Your task to perform on an android device: turn off priority inbox in the gmail app Image 0: 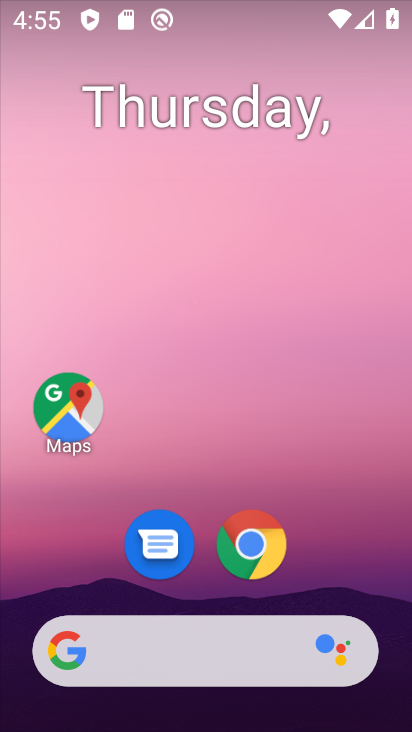
Step 0: drag from (347, 561) to (380, 115)
Your task to perform on an android device: turn off priority inbox in the gmail app Image 1: 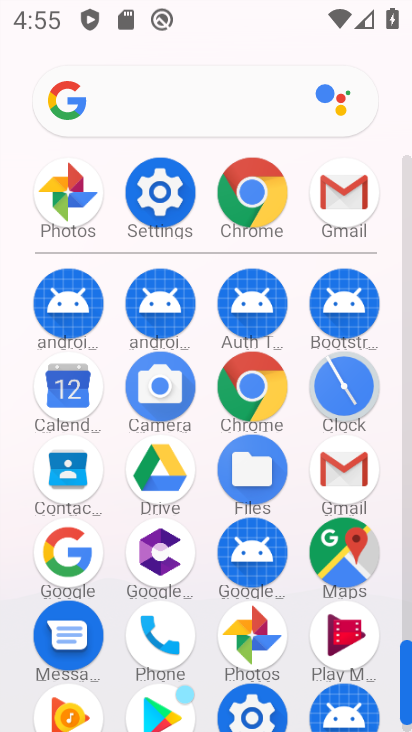
Step 1: click (352, 214)
Your task to perform on an android device: turn off priority inbox in the gmail app Image 2: 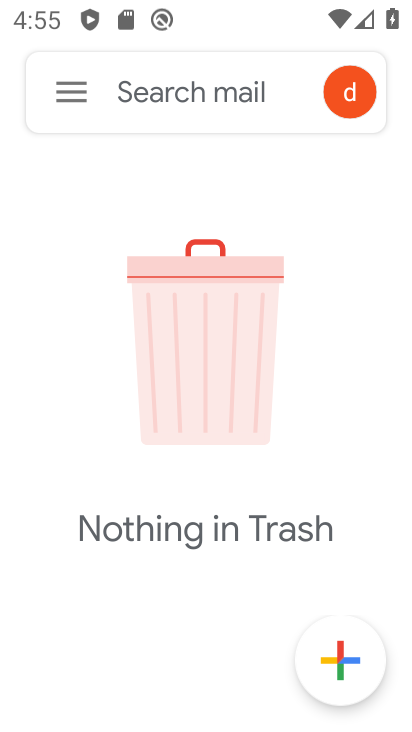
Step 2: click (66, 90)
Your task to perform on an android device: turn off priority inbox in the gmail app Image 3: 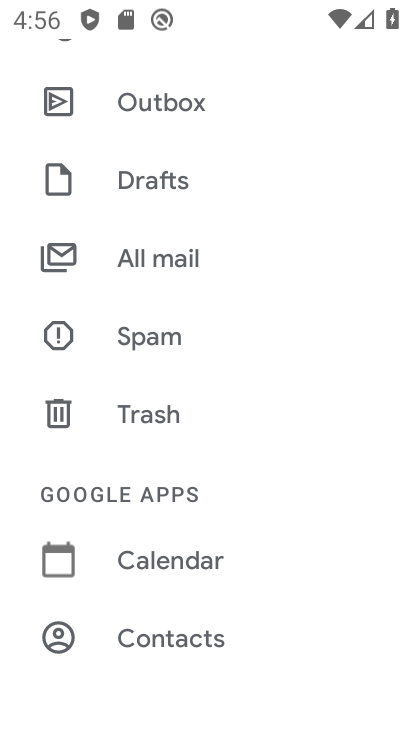
Step 3: drag from (156, 591) to (201, 186)
Your task to perform on an android device: turn off priority inbox in the gmail app Image 4: 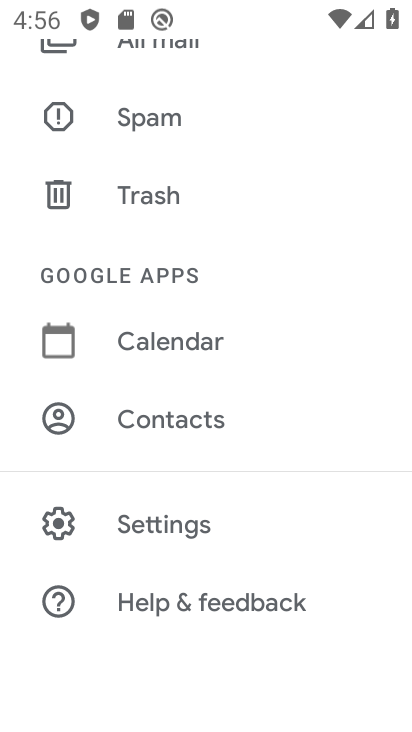
Step 4: click (165, 522)
Your task to perform on an android device: turn off priority inbox in the gmail app Image 5: 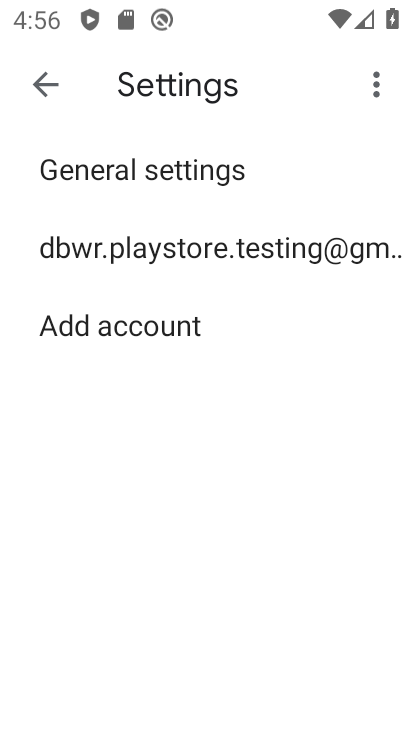
Step 5: click (227, 247)
Your task to perform on an android device: turn off priority inbox in the gmail app Image 6: 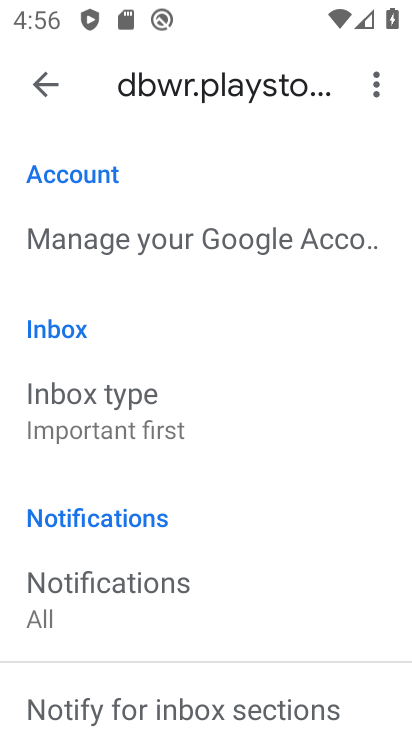
Step 6: drag from (140, 460) to (235, 165)
Your task to perform on an android device: turn off priority inbox in the gmail app Image 7: 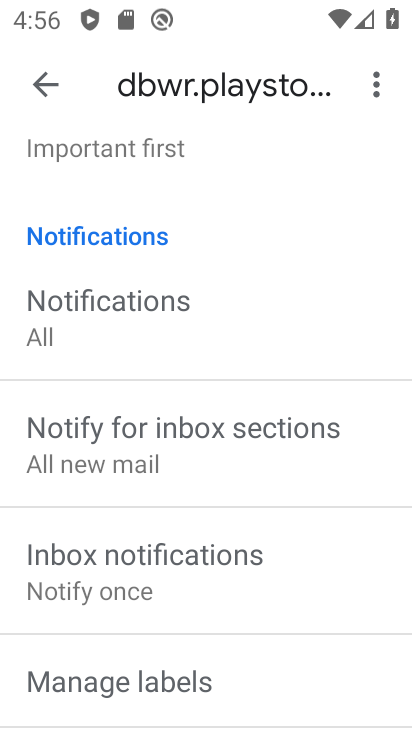
Step 7: drag from (138, 375) to (196, 156)
Your task to perform on an android device: turn off priority inbox in the gmail app Image 8: 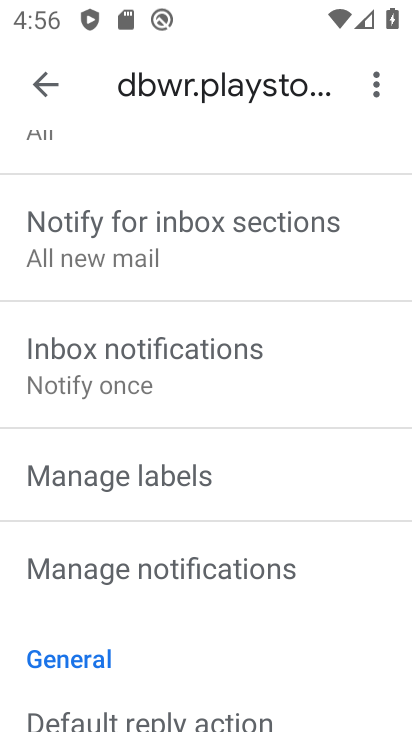
Step 8: drag from (275, 412) to (298, 195)
Your task to perform on an android device: turn off priority inbox in the gmail app Image 9: 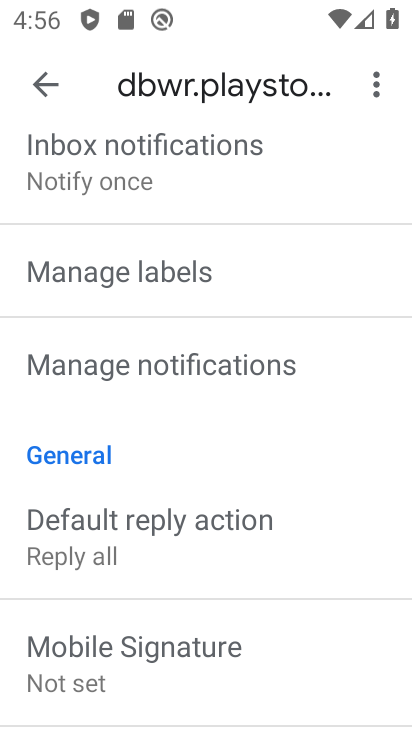
Step 9: drag from (244, 194) to (260, 492)
Your task to perform on an android device: turn off priority inbox in the gmail app Image 10: 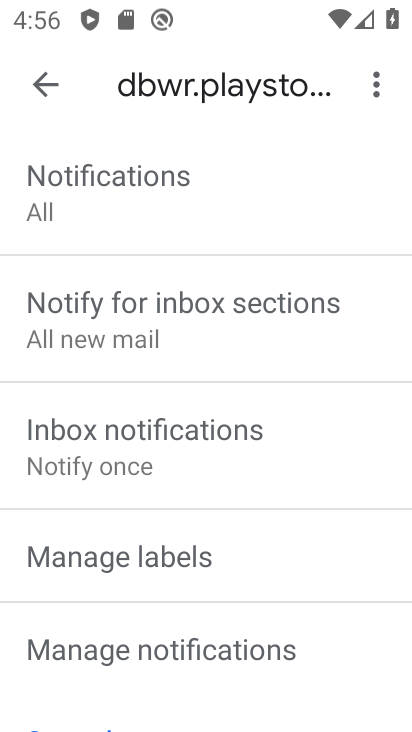
Step 10: drag from (175, 229) to (152, 529)
Your task to perform on an android device: turn off priority inbox in the gmail app Image 11: 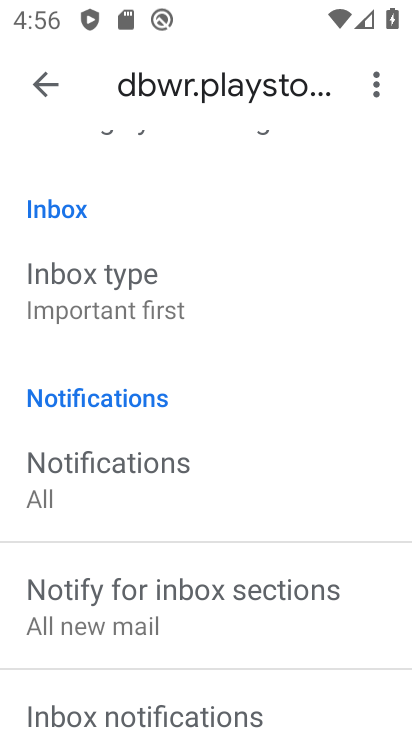
Step 11: click (99, 293)
Your task to perform on an android device: turn off priority inbox in the gmail app Image 12: 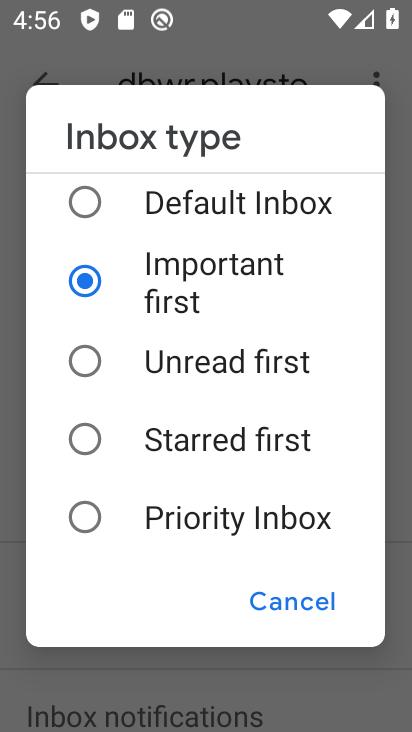
Step 12: click (225, 206)
Your task to perform on an android device: turn off priority inbox in the gmail app Image 13: 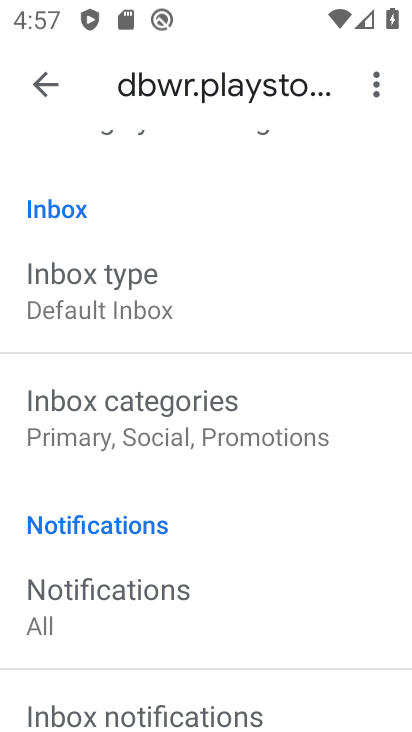
Step 13: task complete